Your task to perform on an android device: Go to Google Image 0: 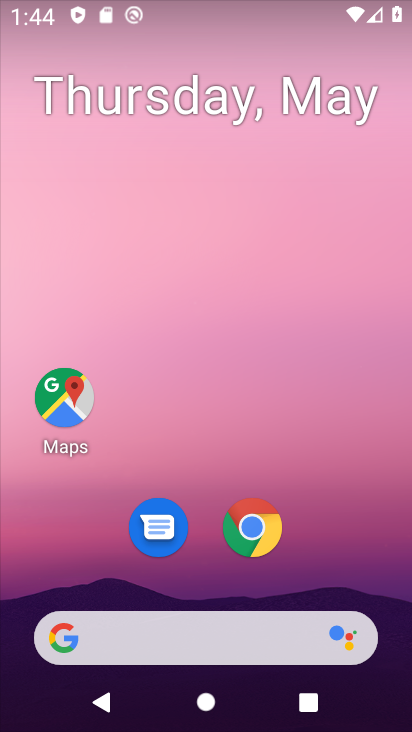
Step 0: drag from (388, 557) to (173, 12)
Your task to perform on an android device: Go to Google Image 1: 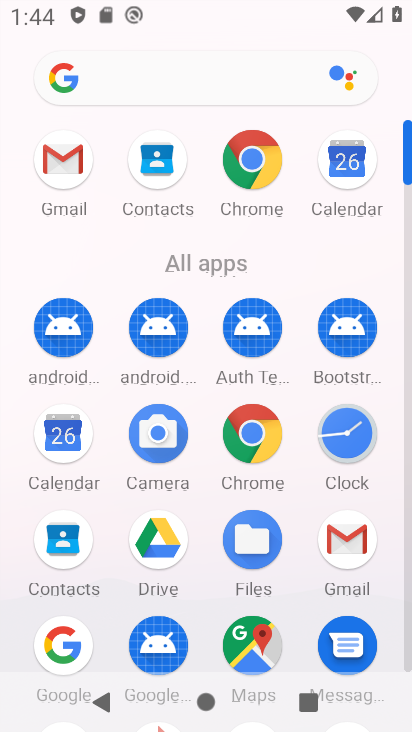
Step 1: click (59, 632)
Your task to perform on an android device: Go to Google Image 2: 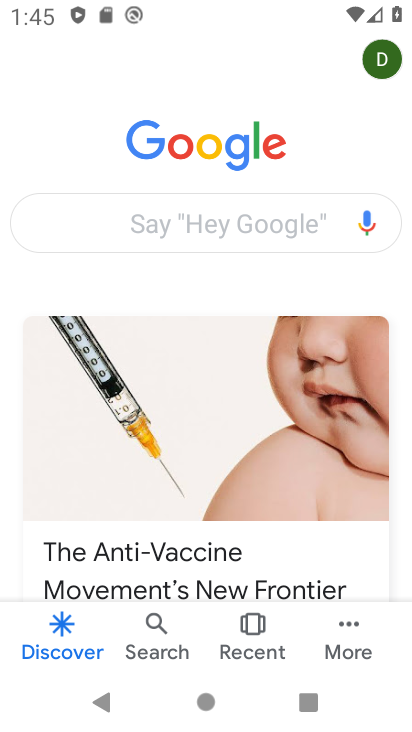
Step 2: task complete